Your task to perform on an android device: turn on airplane mode Image 0: 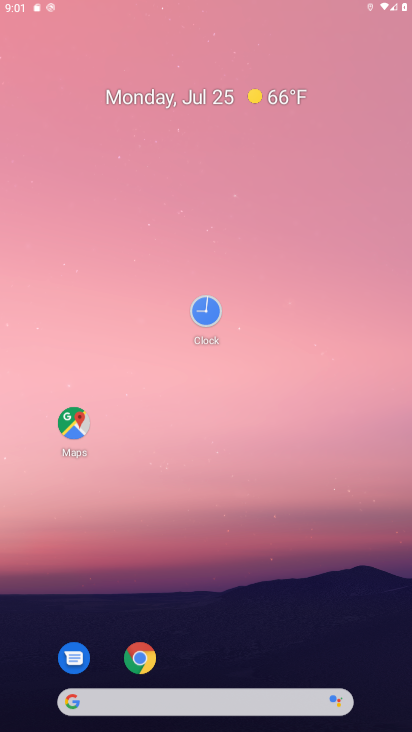
Step 0: click (240, 177)
Your task to perform on an android device: turn on airplane mode Image 1: 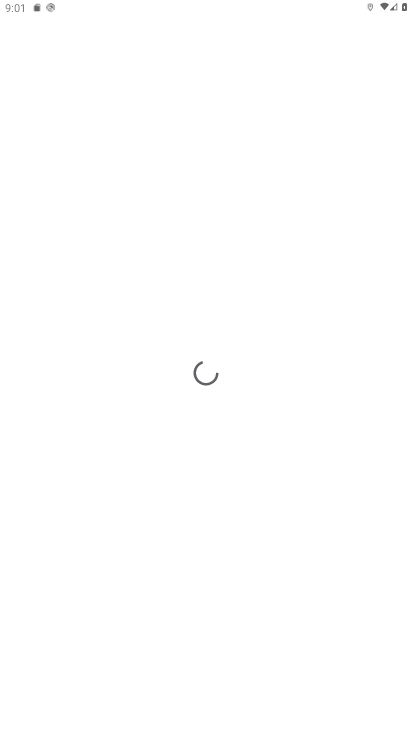
Step 1: drag from (238, 523) to (238, 54)
Your task to perform on an android device: turn on airplane mode Image 2: 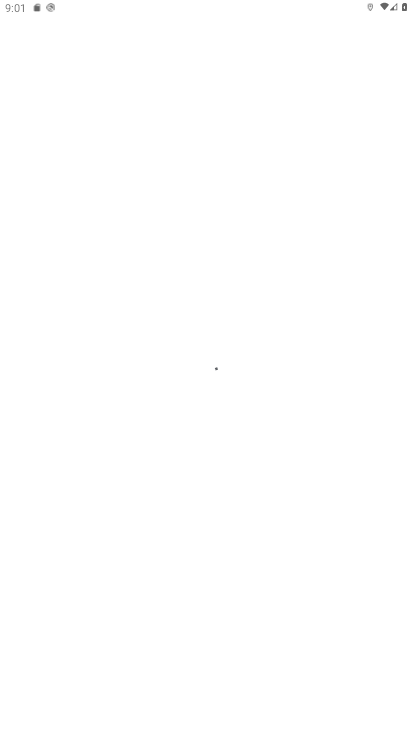
Step 2: press back button
Your task to perform on an android device: turn on airplane mode Image 3: 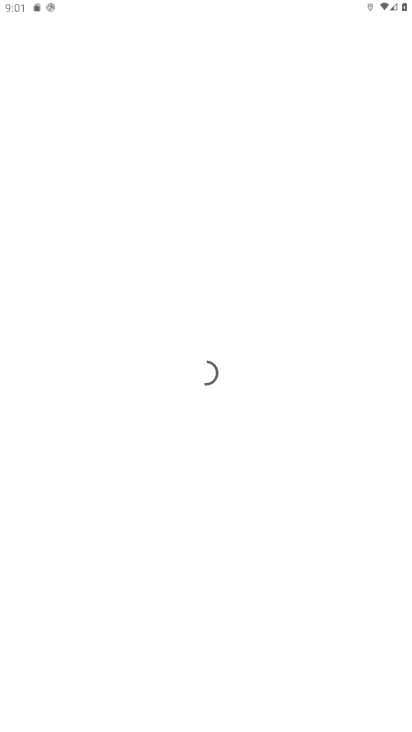
Step 3: press back button
Your task to perform on an android device: turn on airplane mode Image 4: 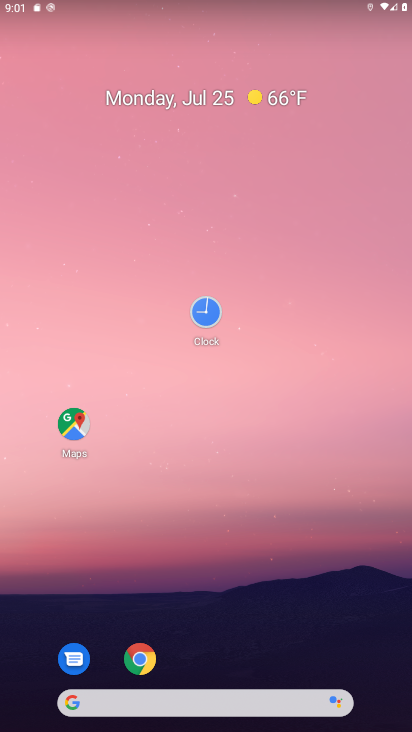
Step 4: drag from (228, 603) to (158, 68)
Your task to perform on an android device: turn on airplane mode Image 5: 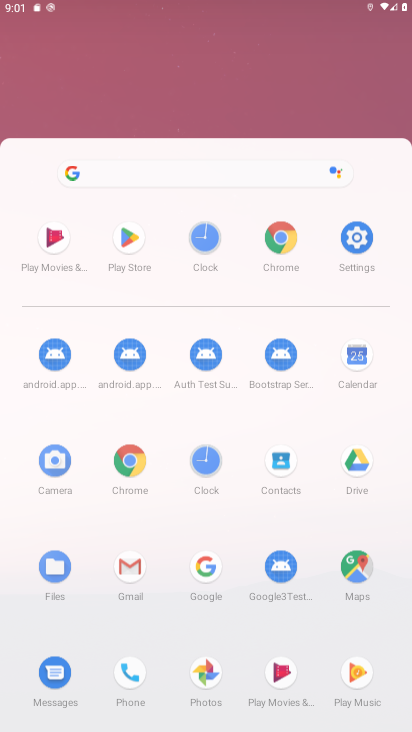
Step 5: drag from (251, 497) to (226, 192)
Your task to perform on an android device: turn on airplane mode Image 6: 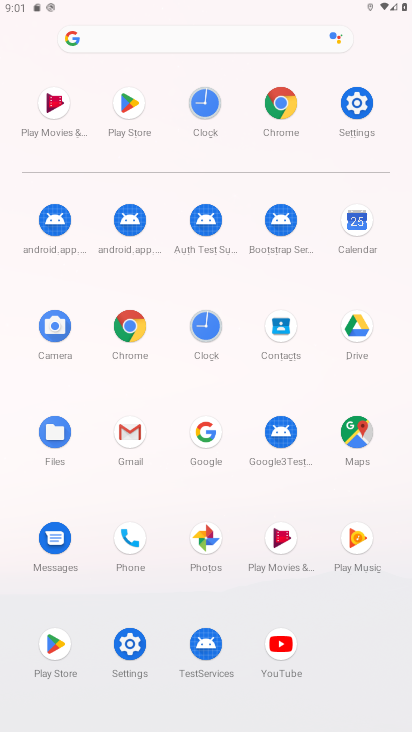
Step 6: drag from (236, 477) to (193, 148)
Your task to perform on an android device: turn on airplane mode Image 7: 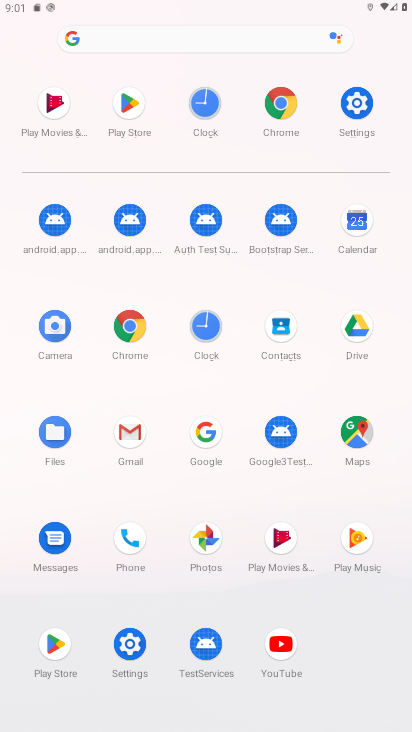
Step 7: click (366, 100)
Your task to perform on an android device: turn on airplane mode Image 8: 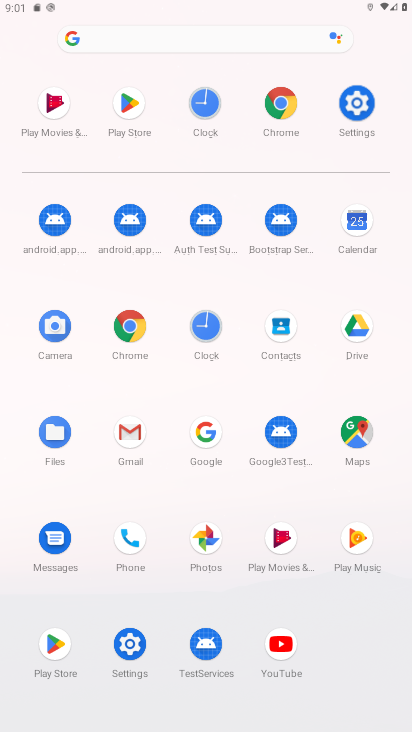
Step 8: click (368, 105)
Your task to perform on an android device: turn on airplane mode Image 9: 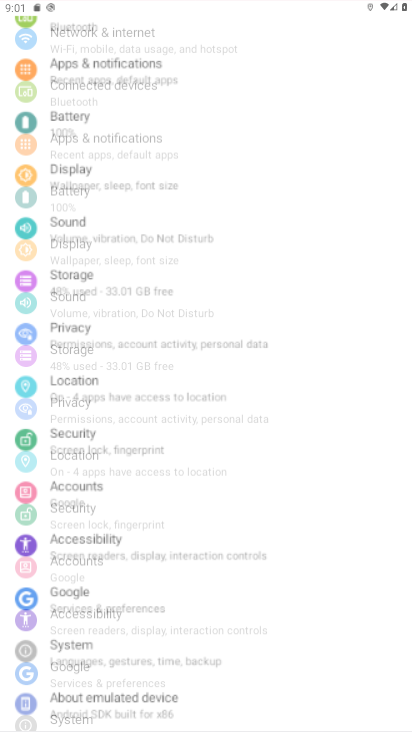
Step 9: click (362, 104)
Your task to perform on an android device: turn on airplane mode Image 10: 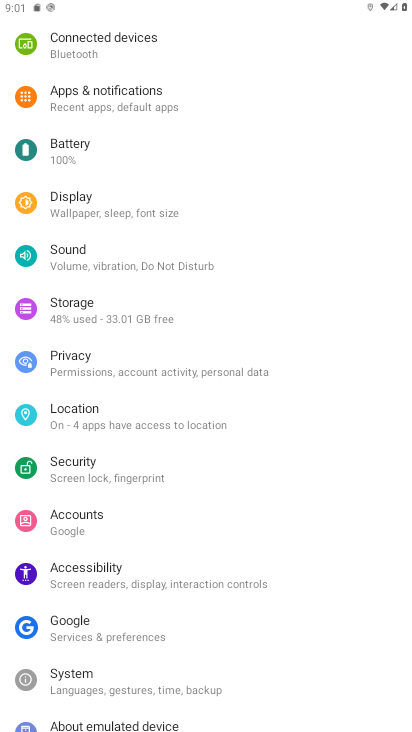
Step 10: click (357, 99)
Your task to perform on an android device: turn on airplane mode Image 11: 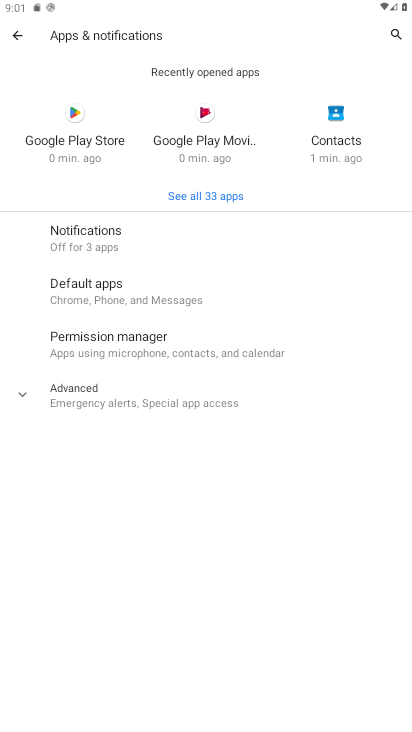
Step 11: click (15, 42)
Your task to perform on an android device: turn on airplane mode Image 12: 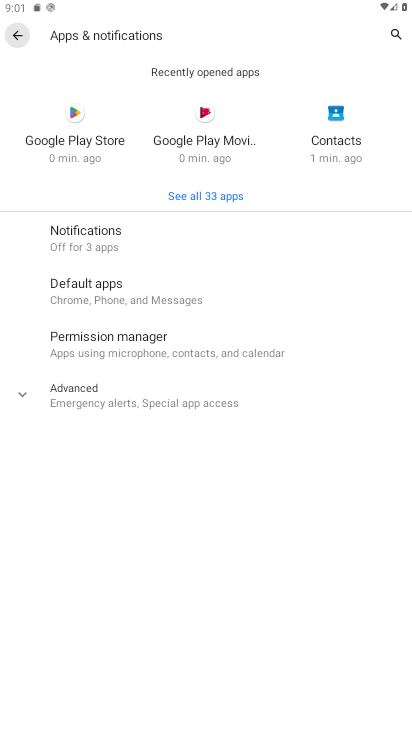
Step 12: click (13, 32)
Your task to perform on an android device: turn on airplane mode Image 13: 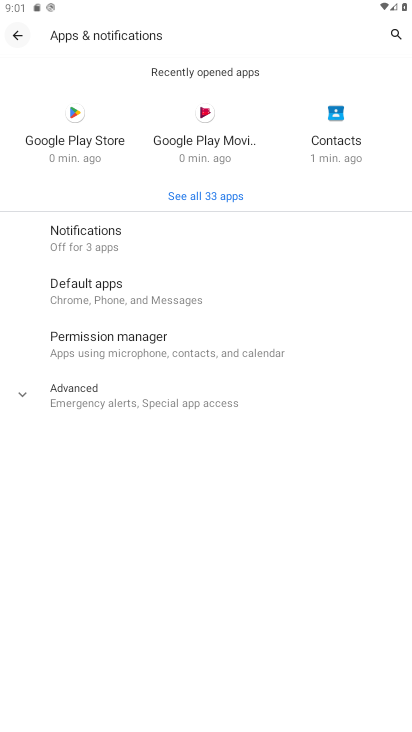
Step 13: click (14, 33)
Your task to perform on an android device: turn on airplane mode Image 14: 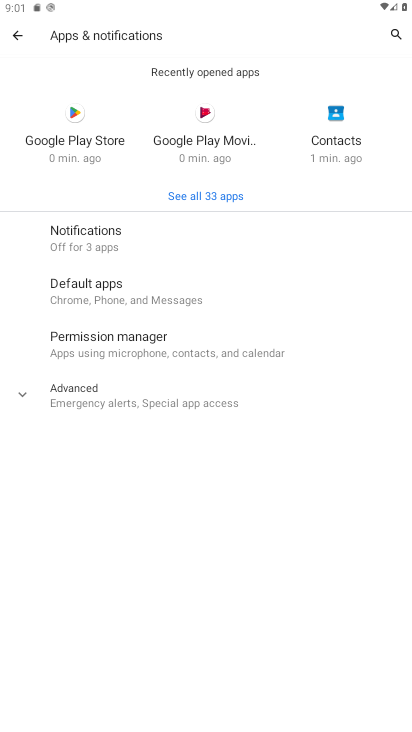
Step 14: click (17, 35)
Your task to perform on an android device: turn on airplane mode Image 15: 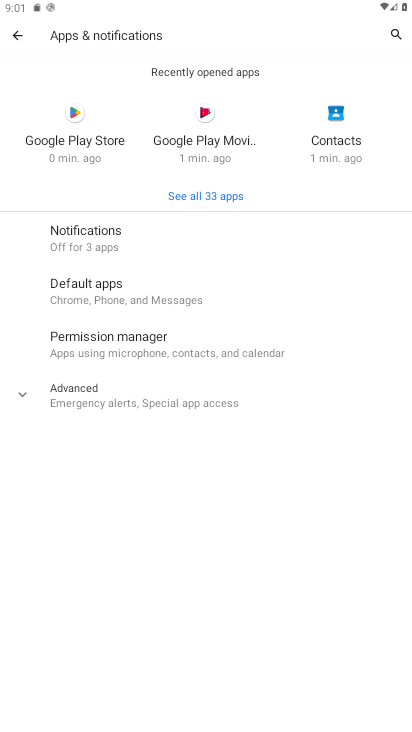
Step 15: click (16, 36)
Your task to perform on an android device: turn on airplane mode Image 16: 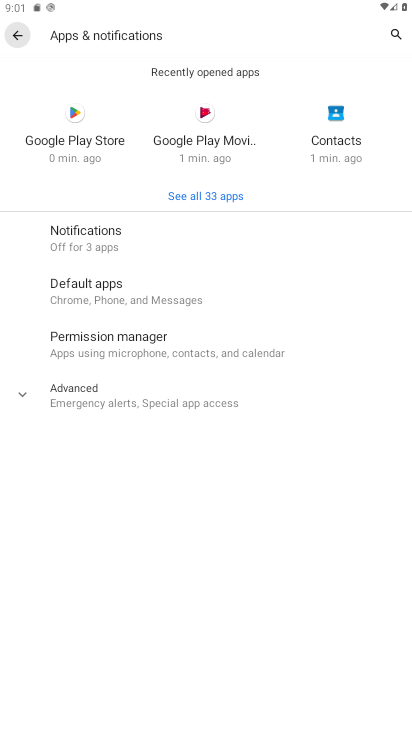
Step 16: click (13, 33)
Your task to perform on an android device: turn on airplane mode Image 17: 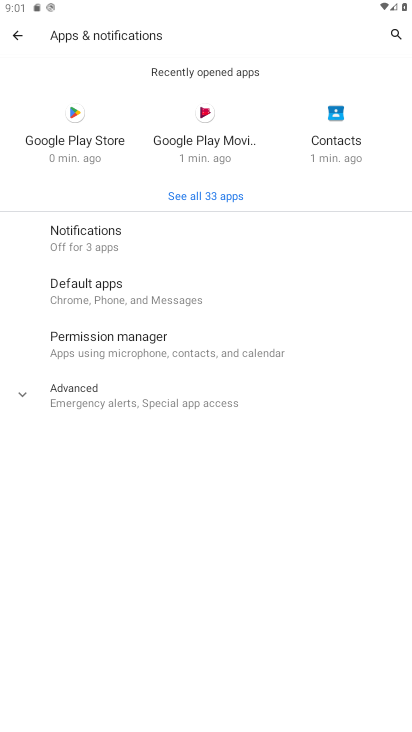
Step 17: click (16, 36)
Your task to perform on an android device: turn on airplane mode Image 18: 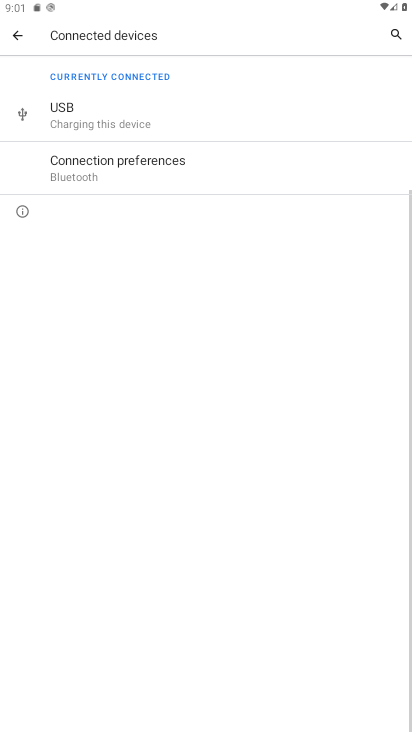
Step 18: click (10, 40)
Your task to perform on an android device: turn on airplane mode Image 19: 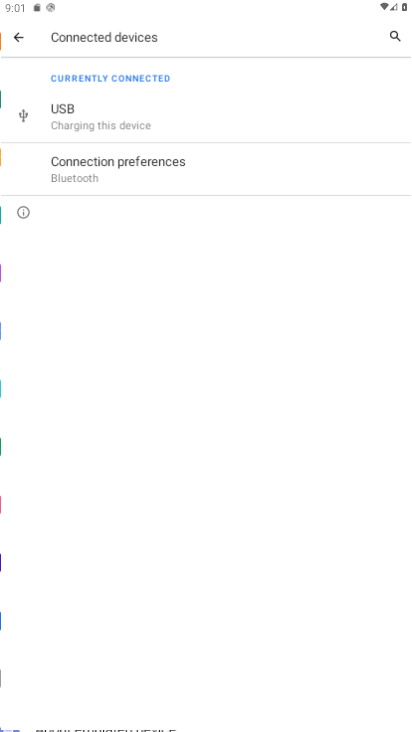
Step 19: click (28, 34)
Your task to perform on an android device: turn on airplane mode Image 20: 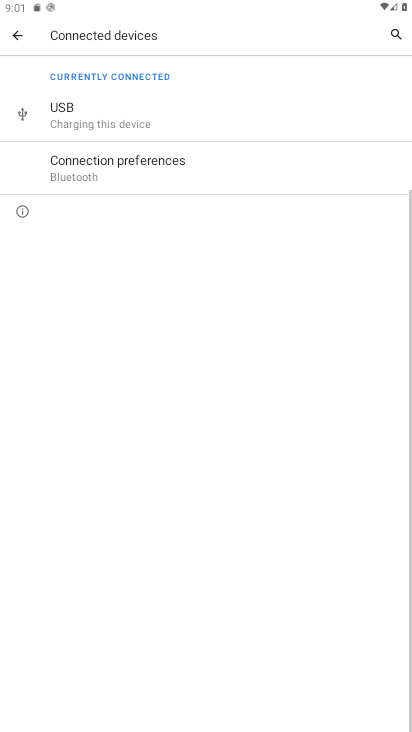
Step 20: click (11, 38)
Your task to perform on an android device: turn on airplane mode Image 21: 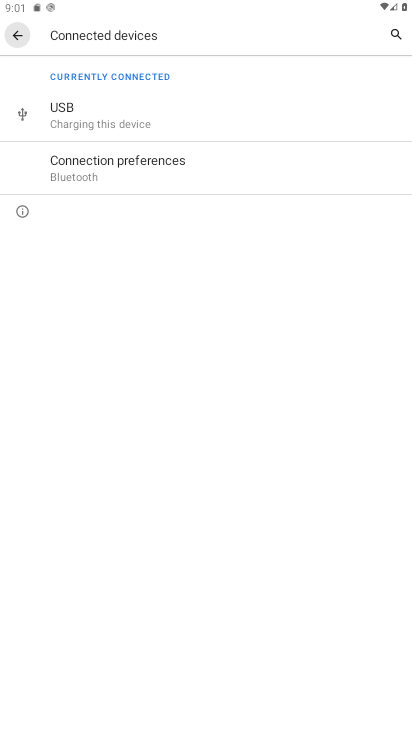
Step 21: click (16, 37)
Your task to perform on an android device: turn on airplane mode Image 22: 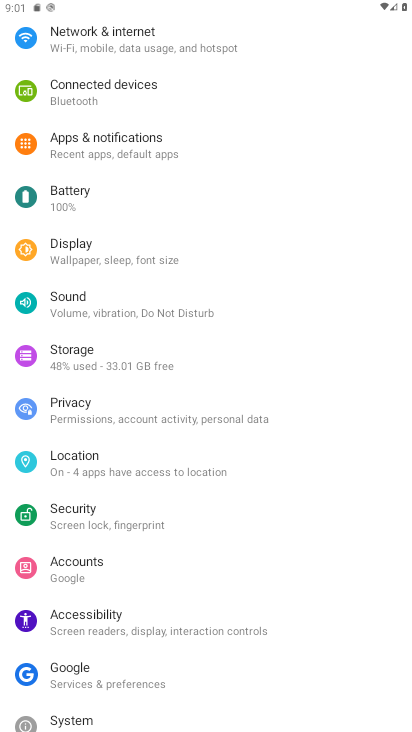
Step 22: click (120, 30)
Your task to perform on an android device: turn on airplane mode Image 23: 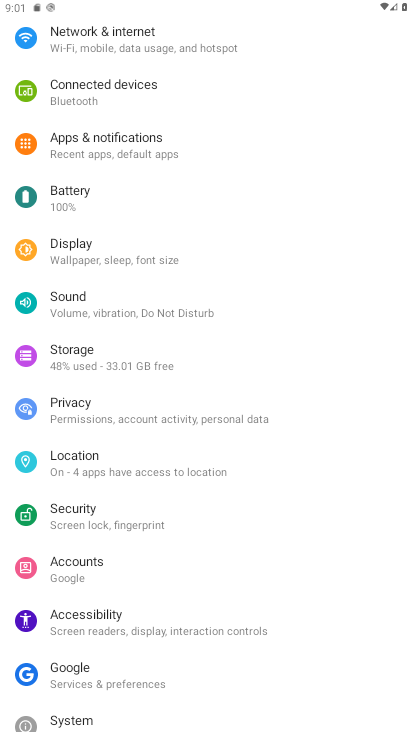
Step 23: click (125, 34)
Your task to perform on an android device: turn on airplane mode Image 24: 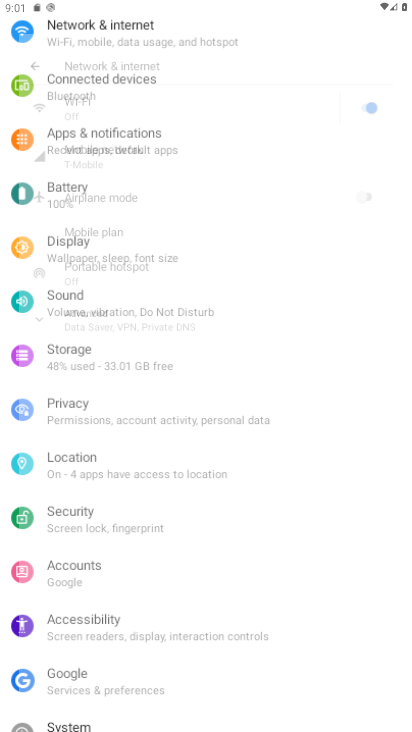
Step 24: click (126, 33)
Your task to perform on an android device: turn on airplane mode Image 25: 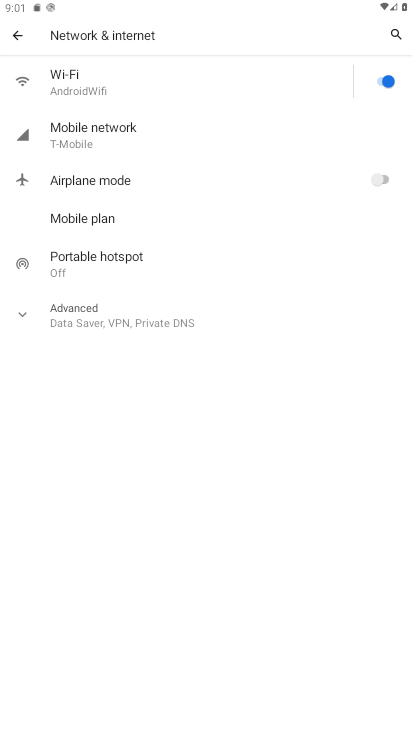
Step 25: click (126, 33)
Your task to perform on an android device: turn on airplane mode Image 26: 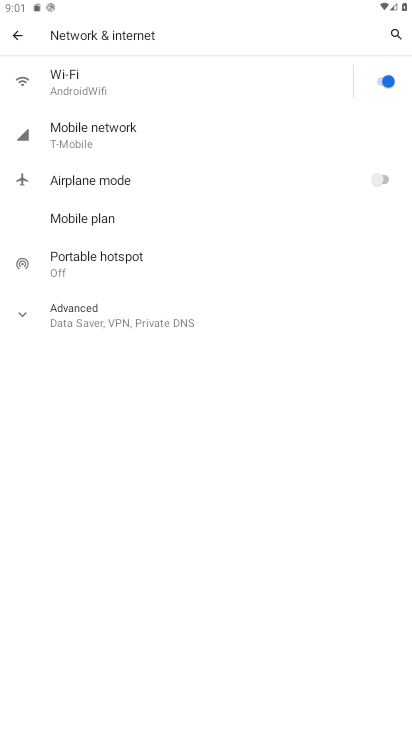
Step 26: click (384, 181)
Your task to perform on an android device: turn on airplane mode Image 27: 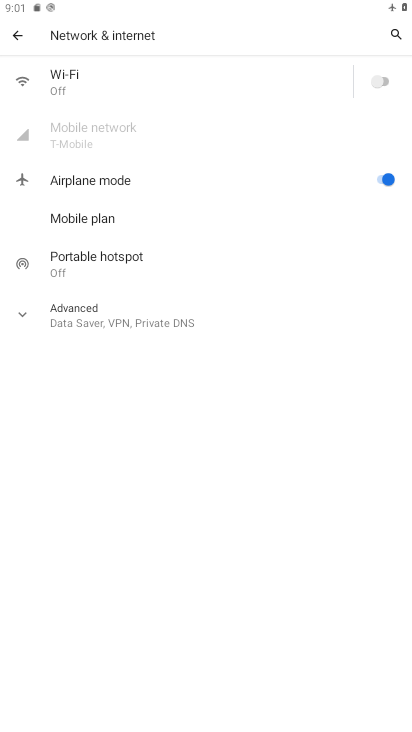
Step 27: task complete